Your task to perform on an android device: manage bookmarks in the chrome app Image 0: 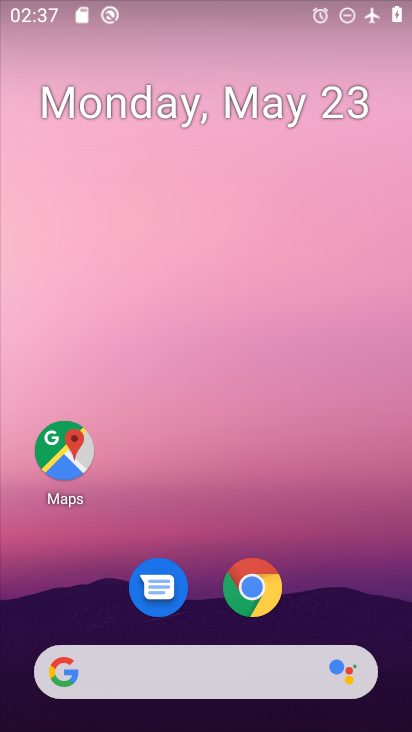
Step 0: click (270, 600)
Your task to perform on an android device: manage bookmarks in the chrome app Image 1: 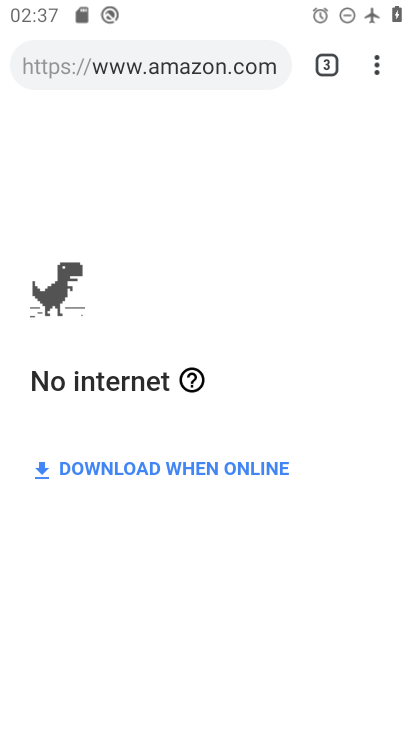
Step 1: task complete